Your task to perform on an android device: Do I have any events today? Image 0: 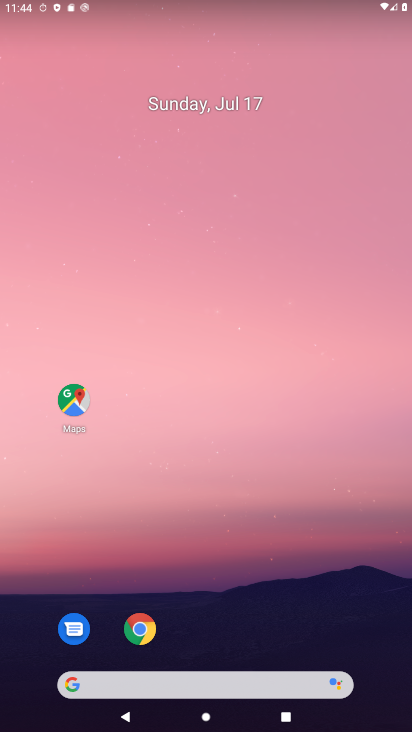
Step 0: press home button
Your task to perform on an android device: Do I have any events today? Image 1: 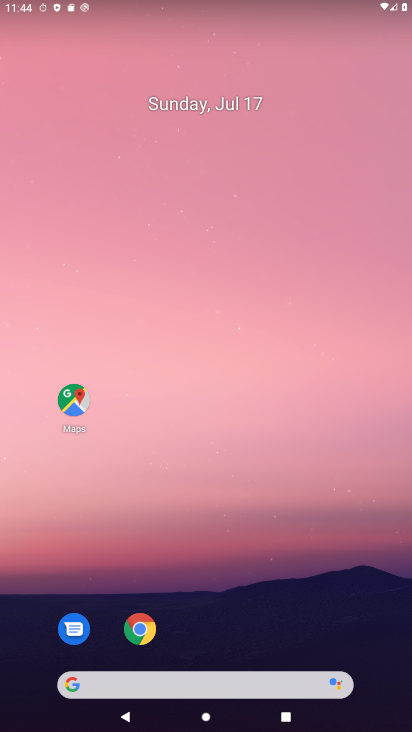
Step 1: task complete